Your task to perform on an android device: Open the web browser Image 0: 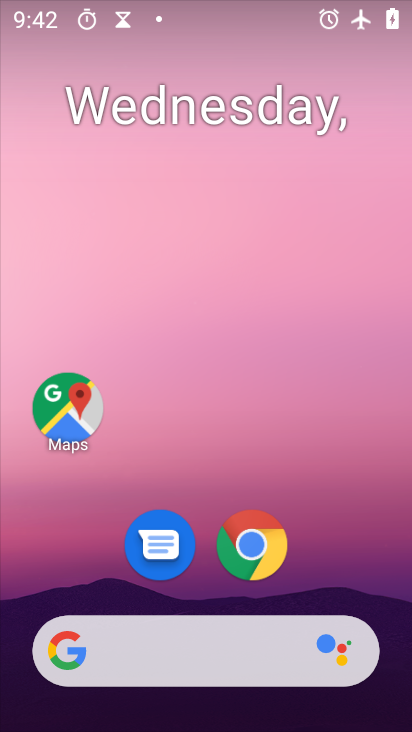
Step 0: press home button
Your task to perform on an android device: Open the web browser Image 1: 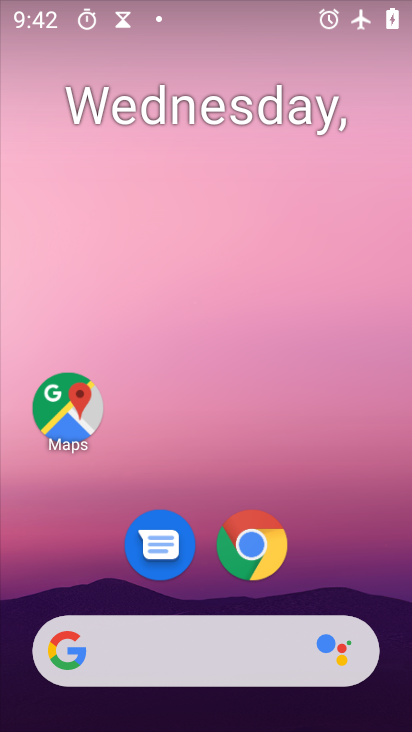
Step 1: click (239, 557)
Your task to perform on an android device: Open the web browser Image 2: 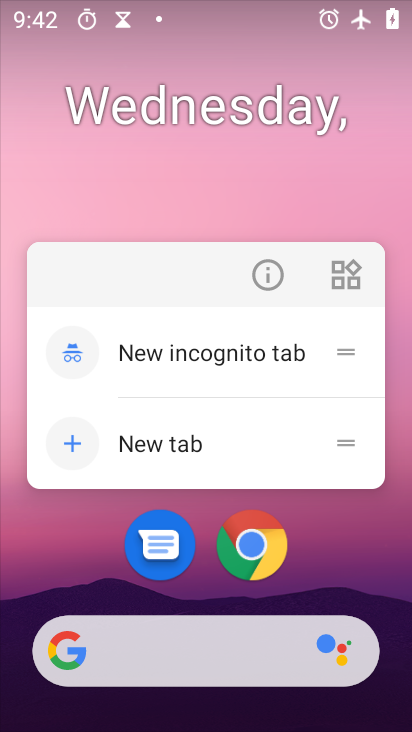
Step 2: click (265, 557)
Your task to perform on an android device: Open the web browser Image 3: 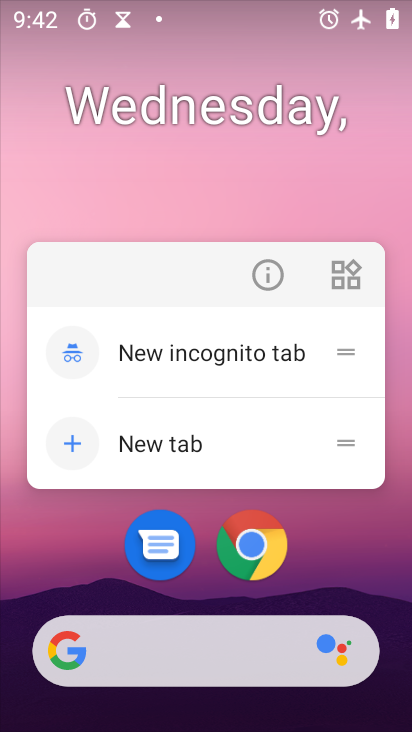
Step 3: click (259, 555)
Your task to perform on an android device: Open the web browser Image 4: 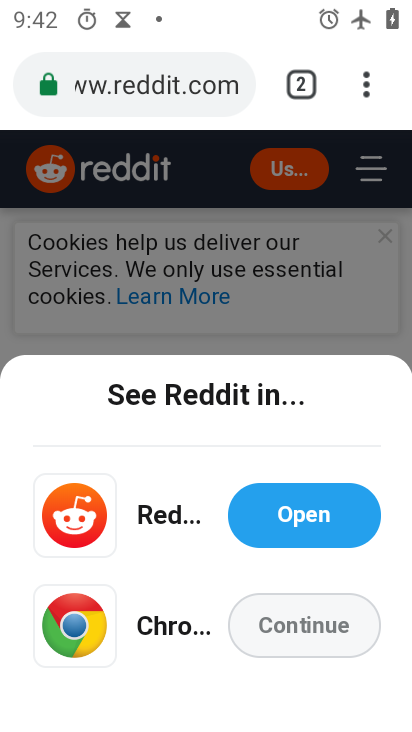
Step 4: task complete